Your task to perform on an android device: turn on bluetooth scan Image 0: 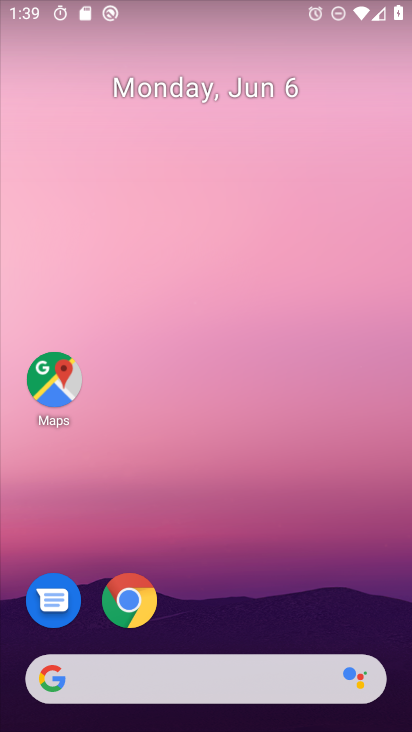
Step 0: drag from (197, 636) to (199, 144)
Your task to perform on an android device: turn on bluetooth scan Image 1: 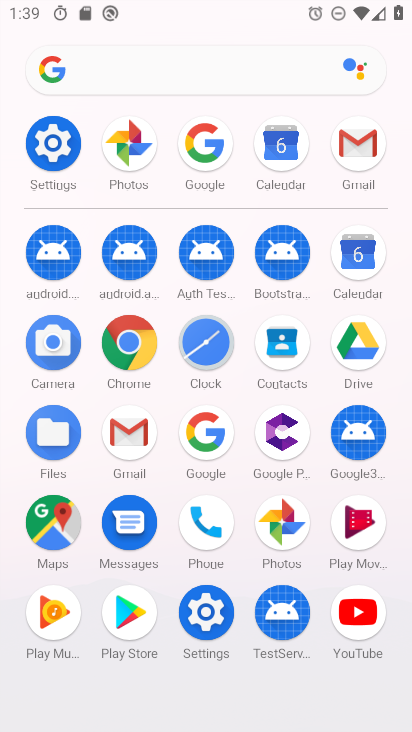
Step 1: click (67, 153)
Your task to perform on an android device: turn on bluetooth scan Image 2: 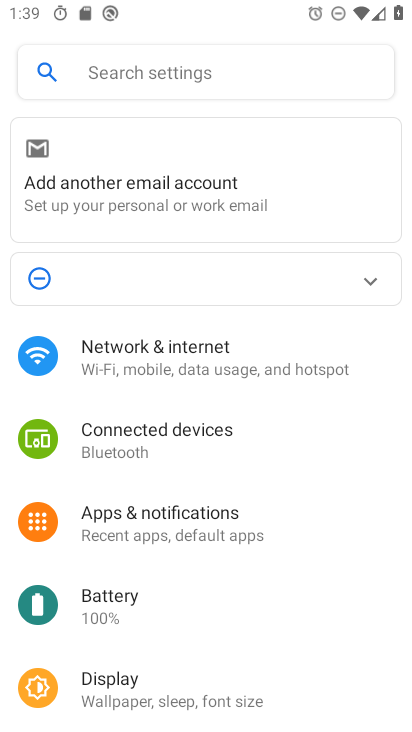
Step 2: drag from (215, 644) to (223, 360)
Your task to perform on an android device: turn on bluetooth scan Image 3: 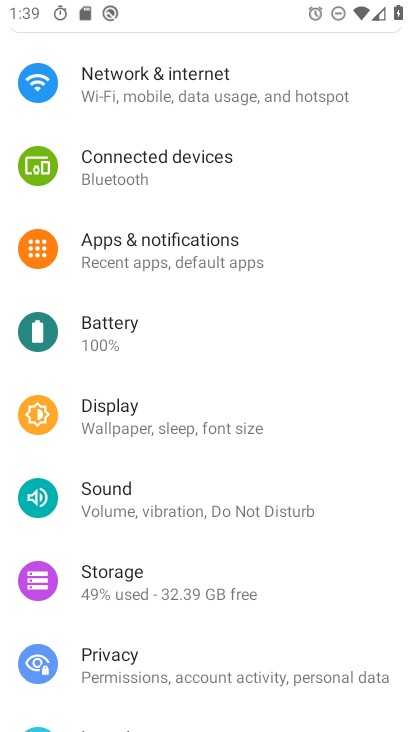
Step 3: drag from (199, 630) to (241, 368)
Your task to perform on an android device: turn on bluetooth scan Image 4: 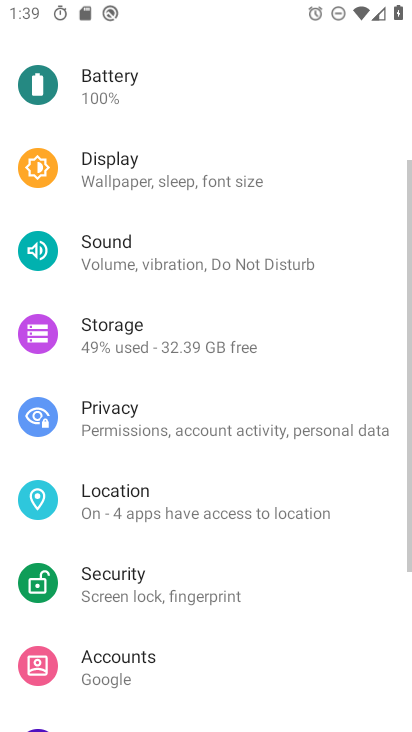
Step 4: click (191, 496)
Your task to perform on an android device: turn on bluetooth scan Image 5: 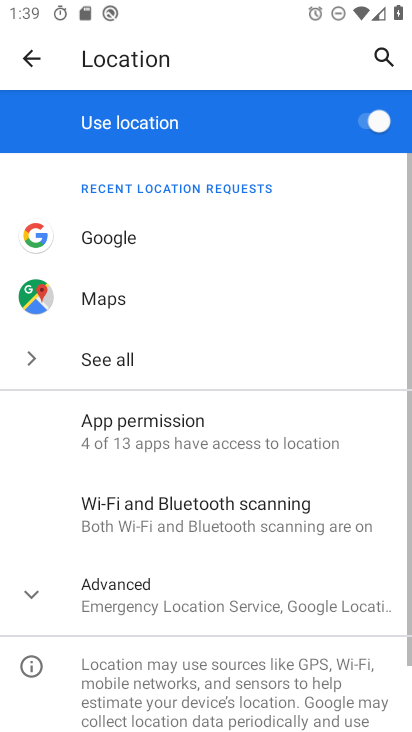
Step 5: click (246, 524)
Your task to perform on an android device: turn on bluetooth scan Image 6: 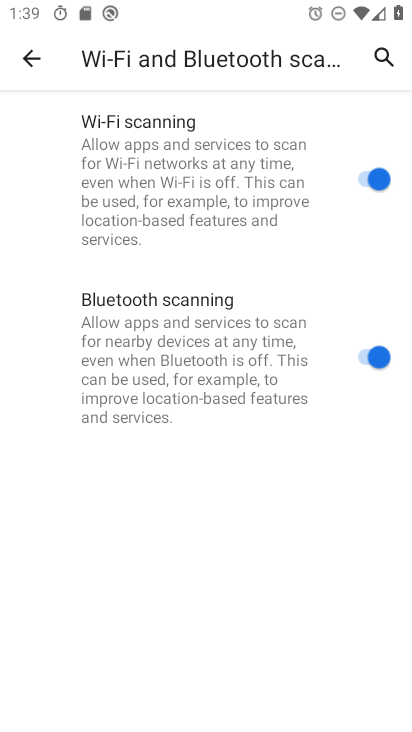
Step 6: task complete